Your task to perform on an android device: Open the calendar app, open the side menu, and click the "Day" option Image 0: 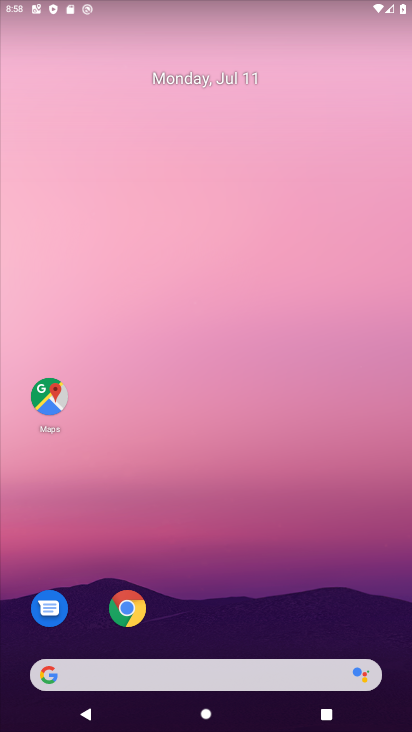
Step 0: drag from (194, 676) to (73, 10)
Your task to perform on an android device: Open the calendar app, open the side menu, and click the "Day" option Image 1: 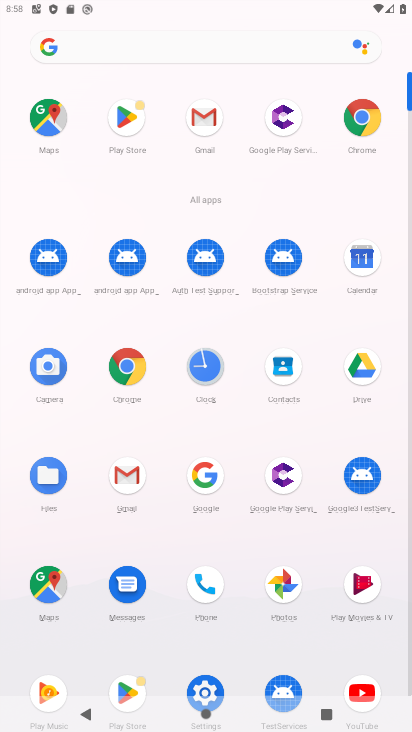
Step 1: click (354, 252)
Your task to perform on an android device: Open the calendar app, open the side menu, and click the "Day" option Image 2: 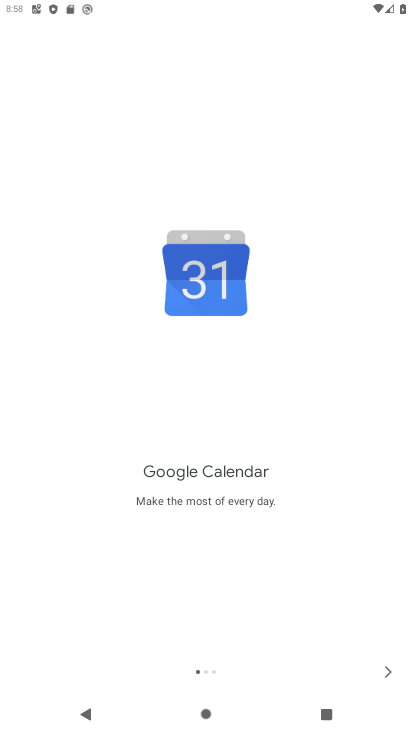
Step 2: click (385, 663)
Your task to perform on an android device: Open the calendar app, open the side menu, and click the "Day" option Image 3: 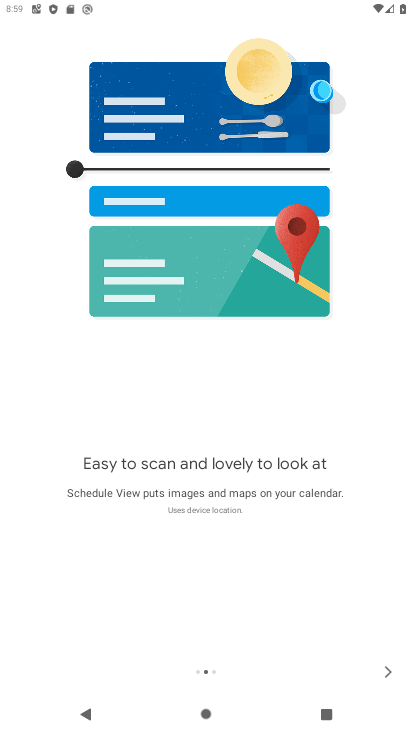
Step 3: click (385, 663)
Your task to perform on an android device: Open the calendar app, open the side menu, and click the "Day" option Image 4: 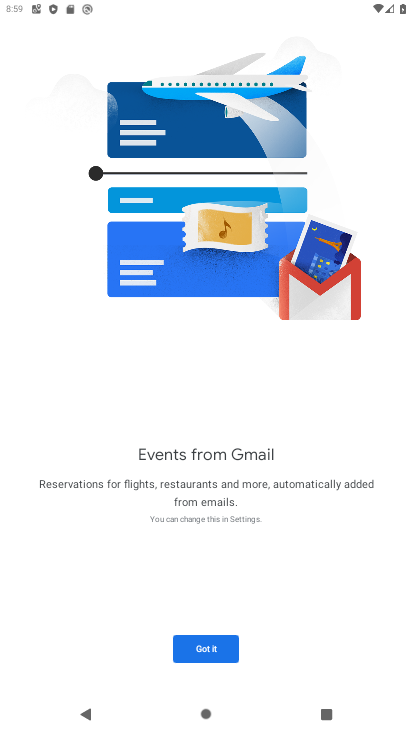
Step 4: click (185, 643)
Your task to perform on an android device: Open the calendar app, open the side menu, and click the "Day" option Image 5: 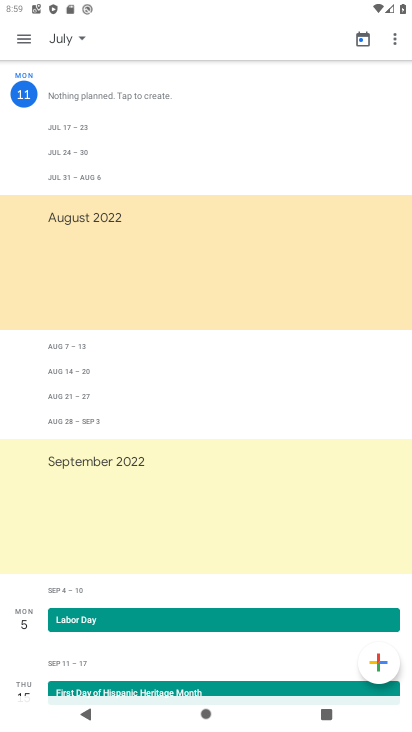
Step 5: click (18, 33)
Your task to perform on an android device: Open the calendar app, open the side menu, and click the "Day" option Image 6: 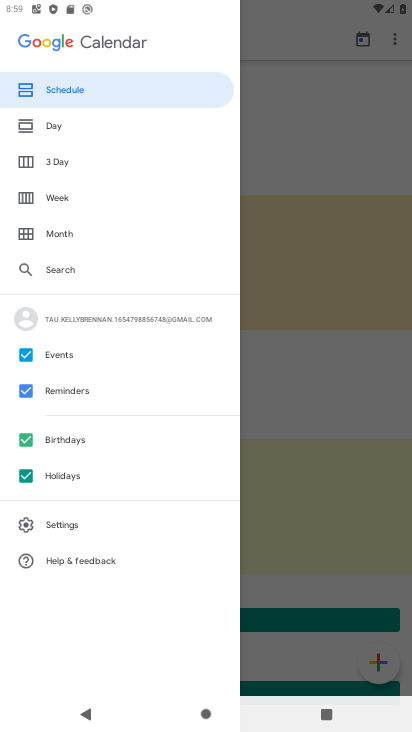
Step 6: click (43, 131)
Your task to perform on an android device: Open the calendar app, open the side menu, and click the "Day" option Image 7: 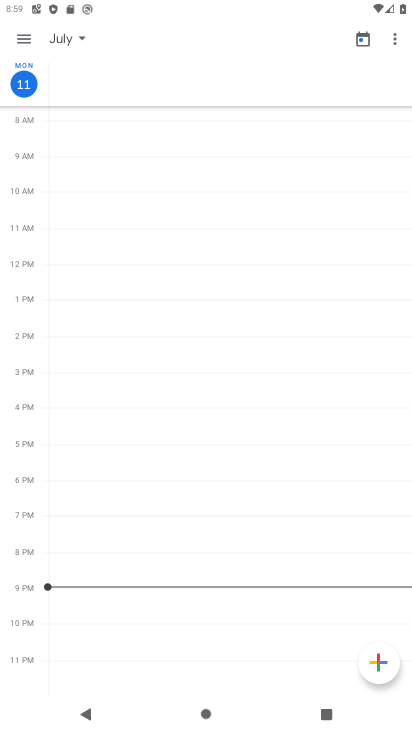
Step 7: task complete